Your task to perform on an android device: Open Android settings Image 0: 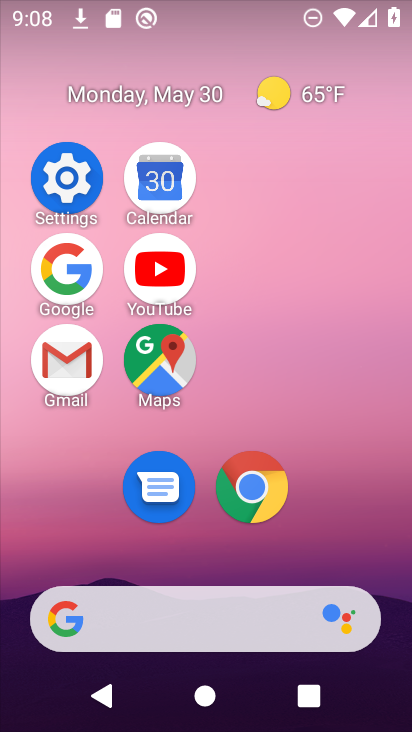
Step 0: click (58, 186)
Your task to perform on an android device: Open Android settings Image 1: 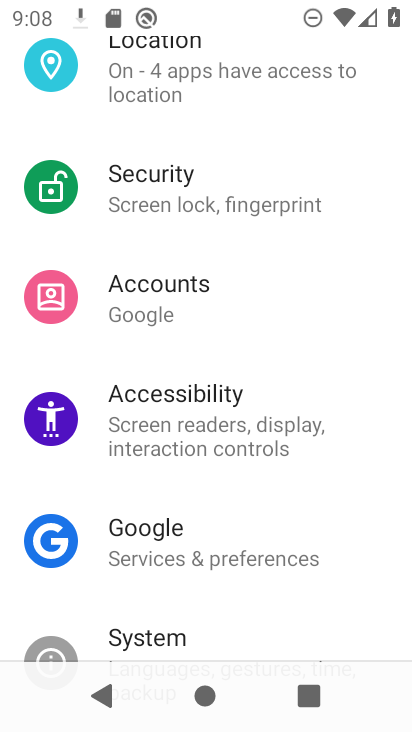
Step 1: task complete